Your task to perform on an android device: Go to settings Image 0: 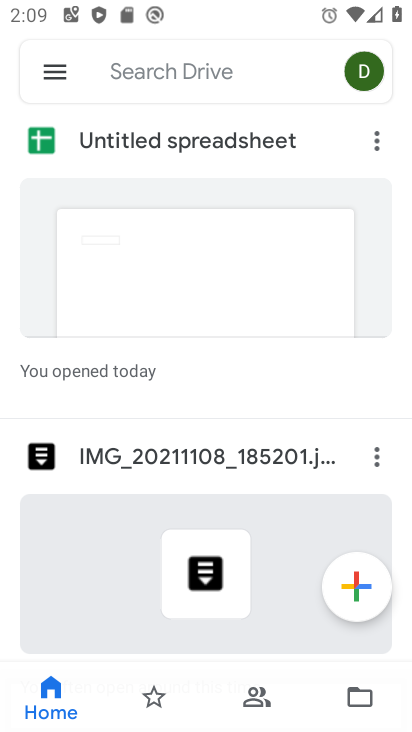
Step 0: press home button
Your task to perform on an android device: Go to settings Image 1: 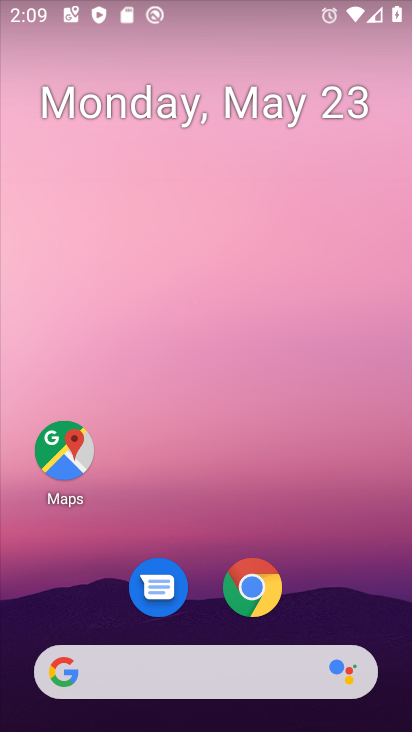
Step 1: drag from (349, 594) to (276, 3)
Your task to perform on an android device: Go to settings Image 2: 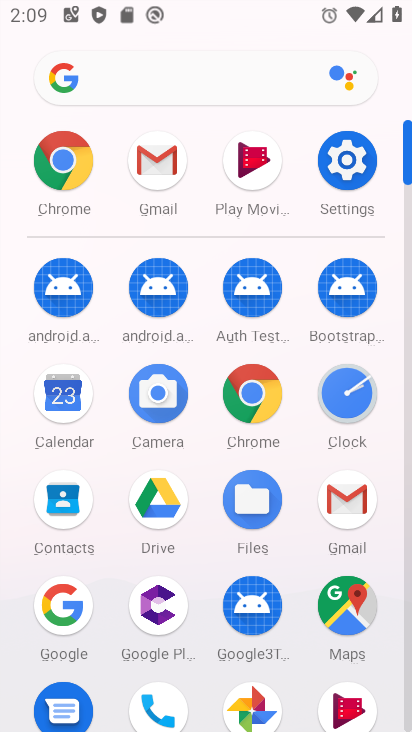
Step 2: click (340, 180)
Your task to perform on an android device: Go to settings Image 3: 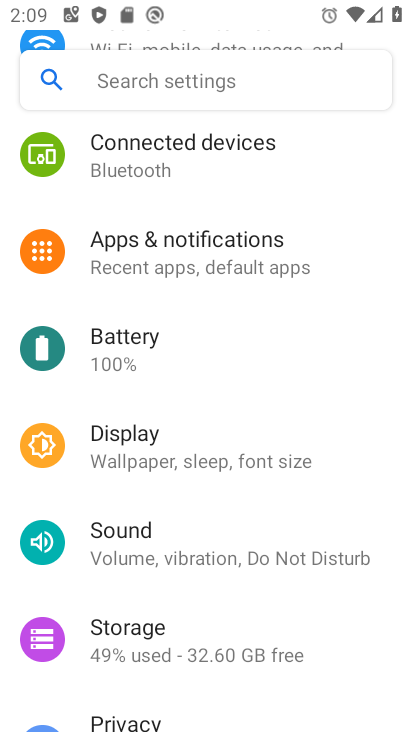
Step 3: task complete